Your task to perform on an android device: Open calendar and show me the first week of next month Image 0: 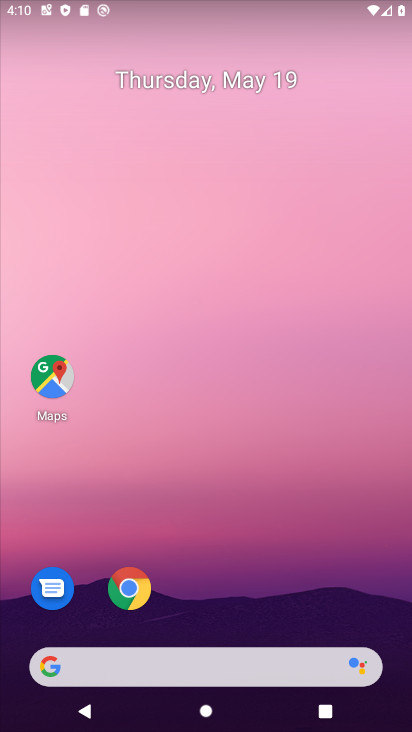
Step 0: click (240, 72)
Your task to perform on an android device: Open calendar and show me the first week of next month Image 1: 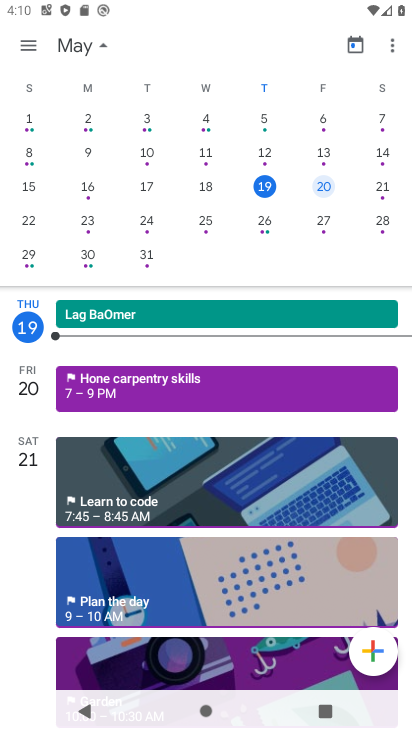
Step 1: drag from (337, 250) to (0, 120)
Your task to perform on an android device: Open calendar and show me the first week of next month Image 2: 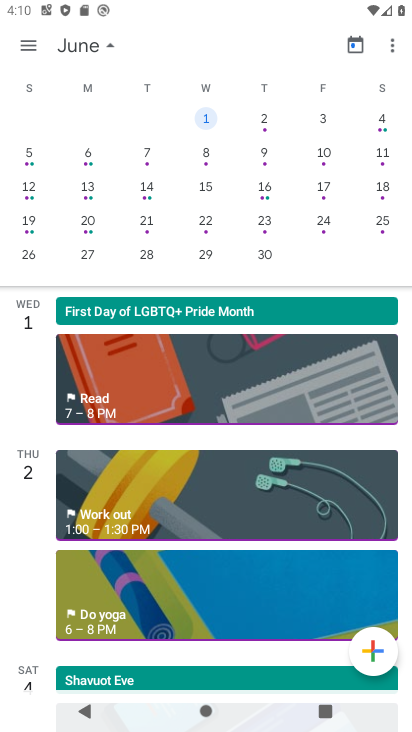
Step 2: click (325, 119)
Your task to perform on an android device: Open calendar and show me the first week of next month Image 3: 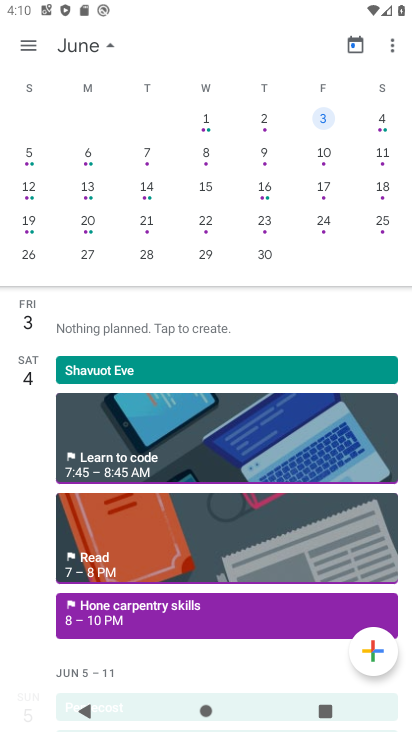
Step 3: task complete